Your task to perform on an android device: snooze an email in the gmail app Image 0: 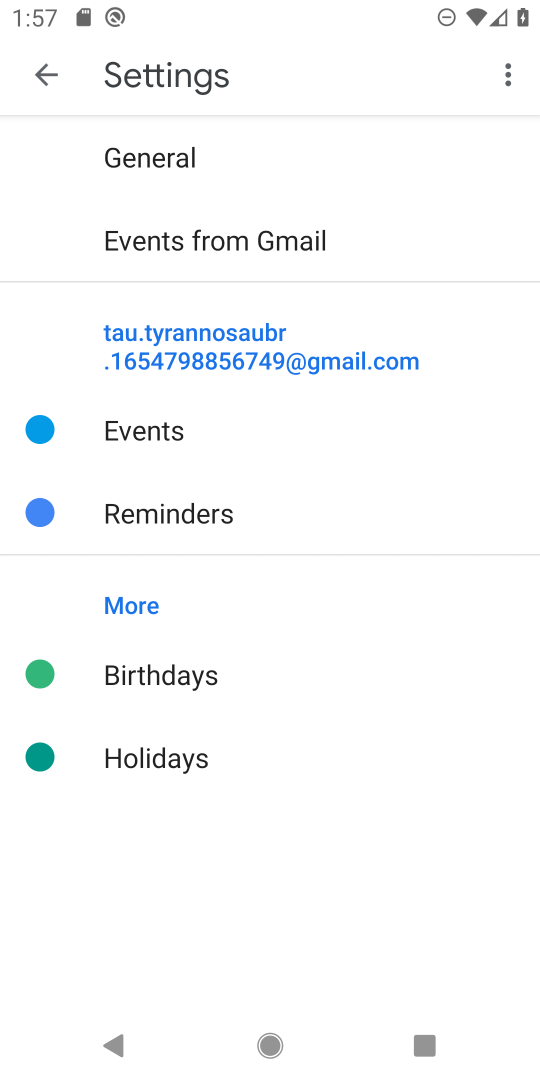
Step 0: task complete